Your task to perform on an android device: change timer sound Image 0: 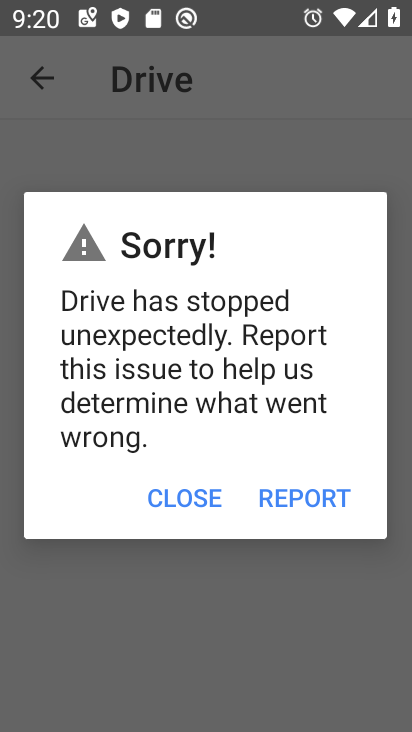
Step 0: press home button
Your task to perform on an android device: change timer sound Image 1: 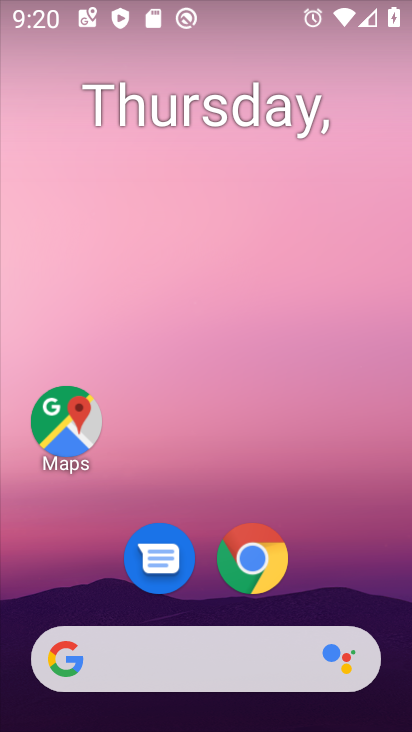
Step 1: drag from (367, 595) to (298, 24)
Your task to perform on an android device: change timer sound Image 2: 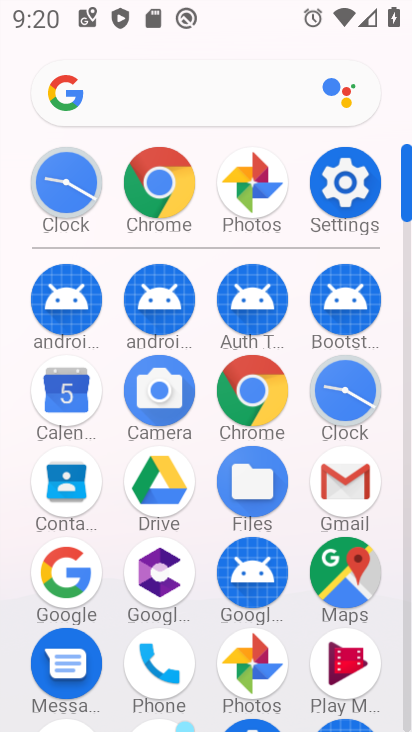
Step 2: click (406, 704)
Your task to perform on an android device: change timer sound Image 3: 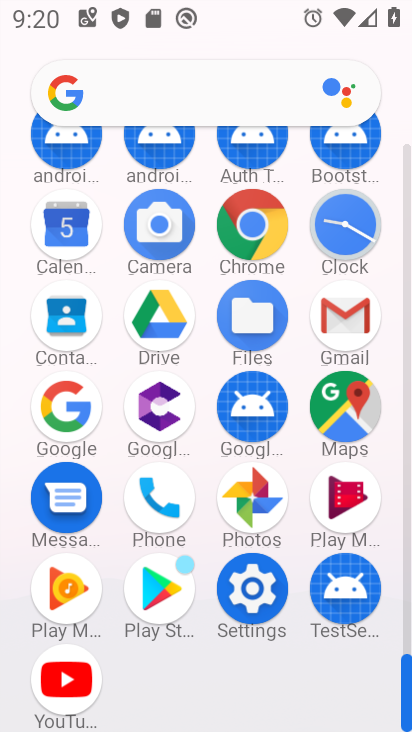
Step 3: click (339, 217)
Your task to perform on an android device: change timer sound Image 4: 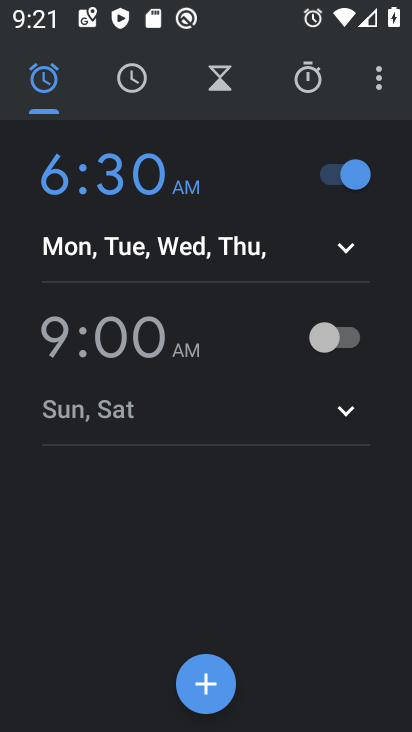
Step 4: click (382, 92)
Your task to perform on an android device: change timer sound Image 5: 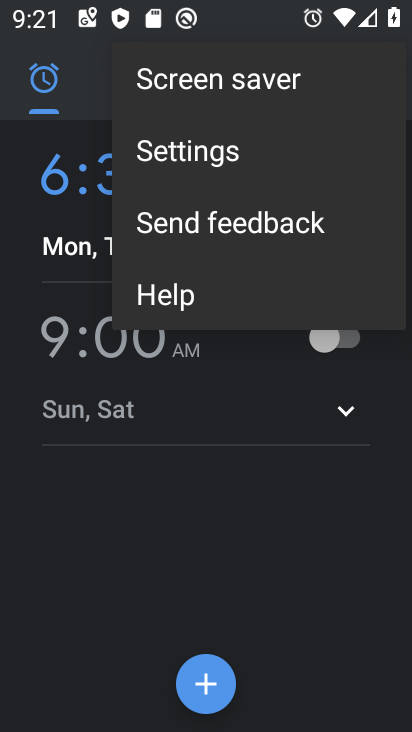
Step 5: click (192, 149)
Your task to perform on an android device: change timer sound Image 6: 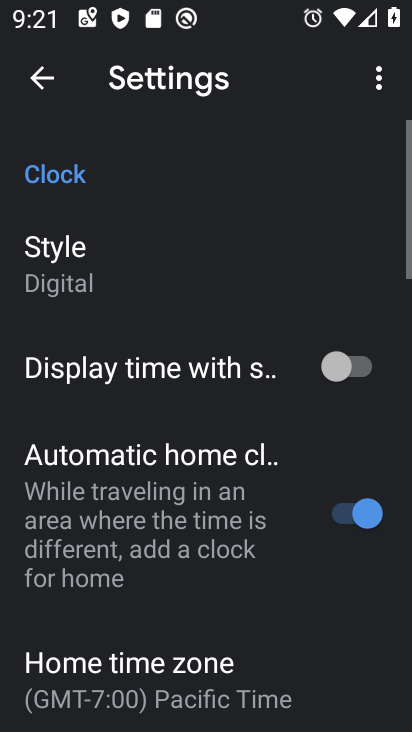
Step 6: drag from (281, 619) to (271, 123)
Your task to perform on an android device: change timer sound Image 7: 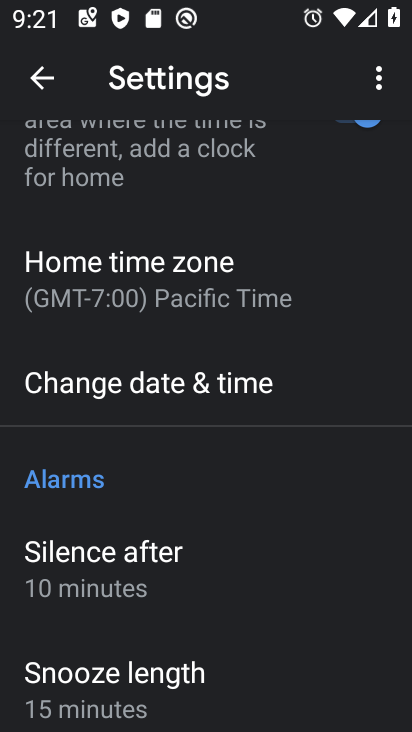
Step 7: drag from (257, 636) to (292, 191)
Your task to perform on an android device: change timer sound Image 8: 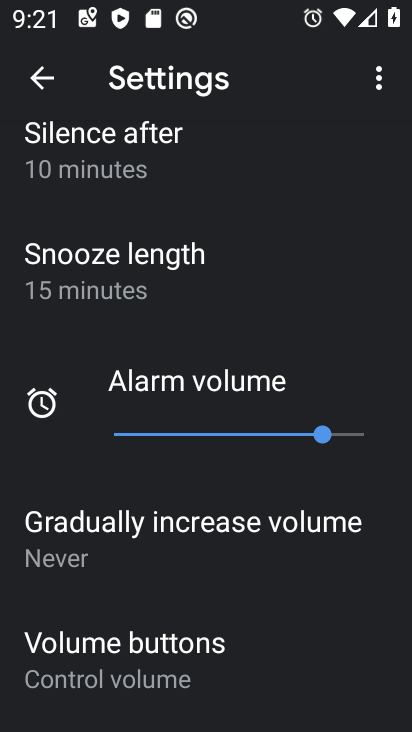
Step 8: drag from (262, 614) to (292, 217)
Your task to perform on an android device: change timer sound Image 9: 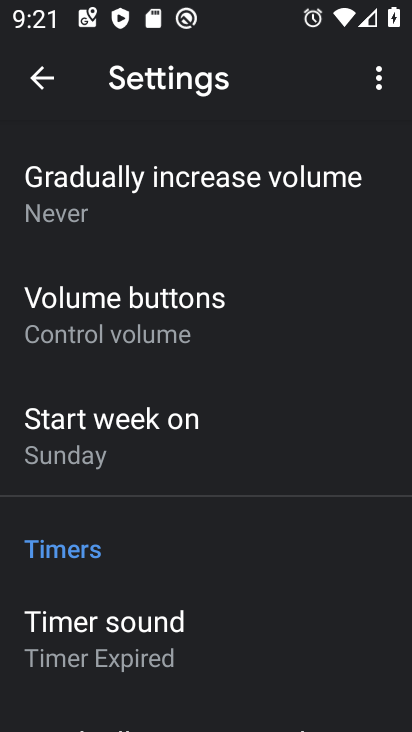
Step 9: click (90, 644)
Your task to perform on an android device: change timer sound Image 10: 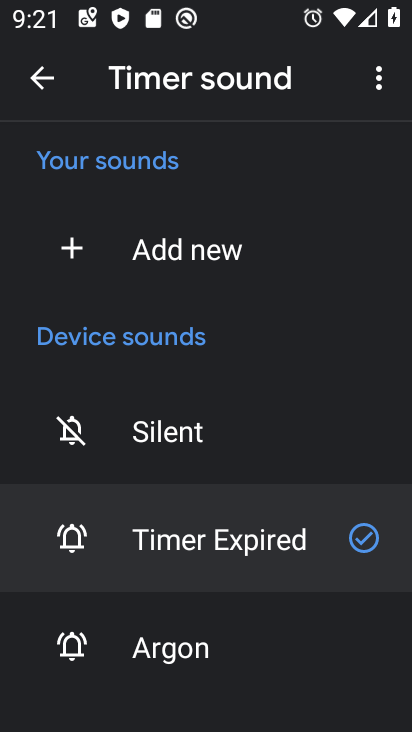
Step 10: drag from (225, 680) to (283, 258)
Your task to perform on an android device: change timer sound Image 11: 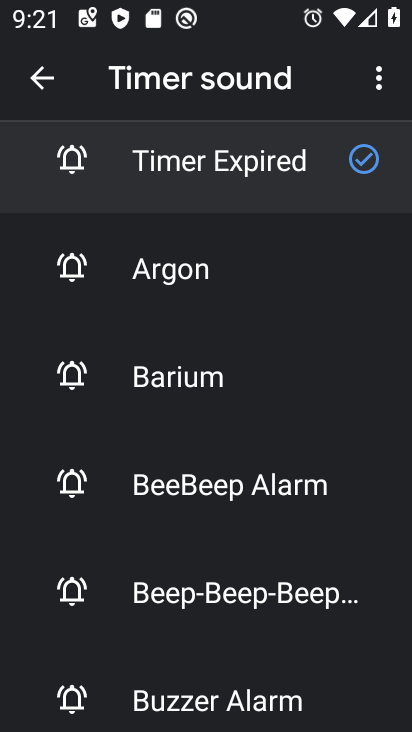
Step 11: click (207, 588)
Your task to perform on an android device: change timer sound Image 12: 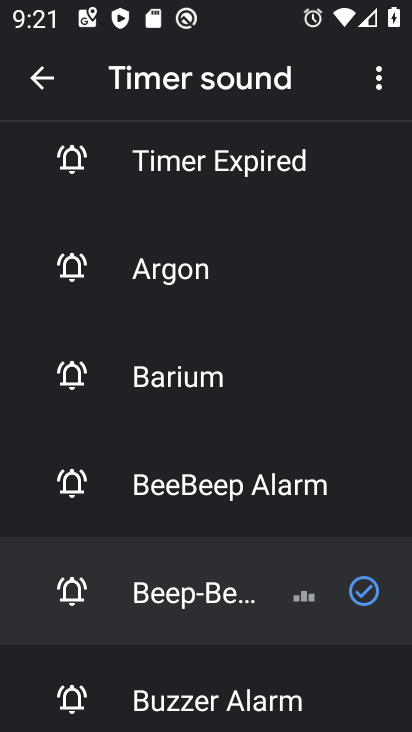
Step 12: task complete